Your task to perform on an android device: check storage Image 0: 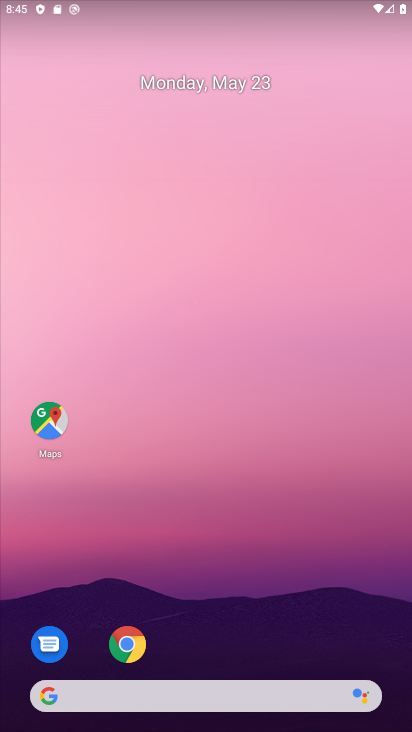
Step 0: drag from (227, 648) to (252, 238)
Your task to perform on an android device: check storage Image 1: 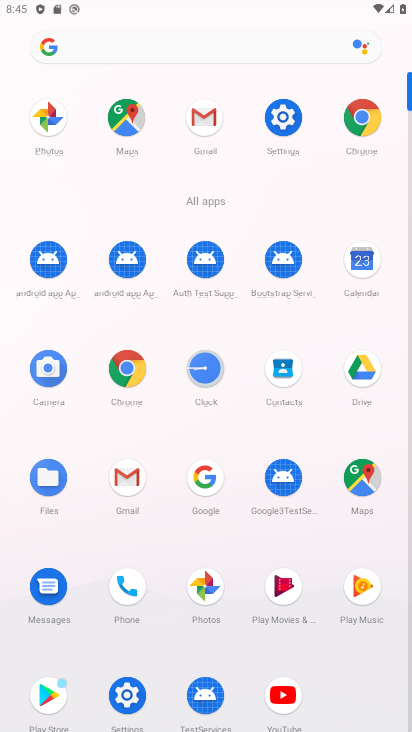
Step 1: click (280, 119)
Your task to perform on an android device: check storage Image 2: 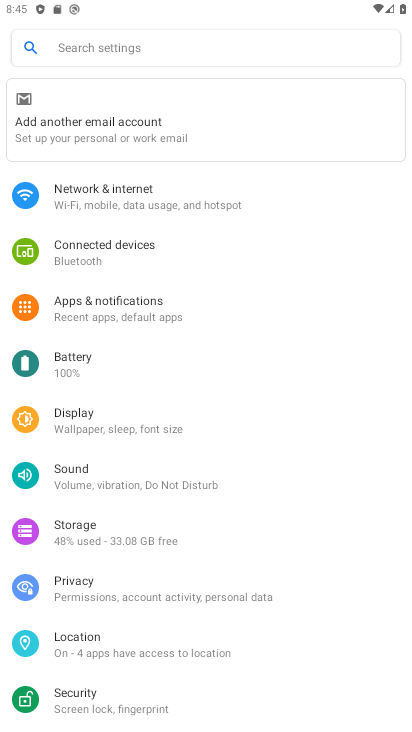
Step 2: click (93, 527)
Your task to perform on an android device: check storage Image 3: 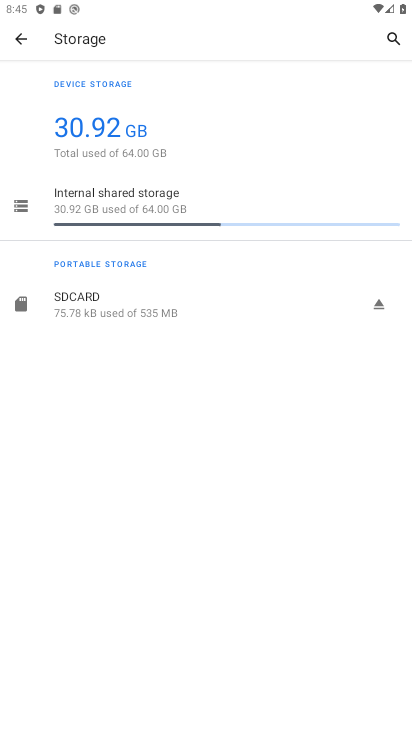
Step 3: task complete